Your task to perform on an android device: turn on priority inbox in the gmail app Image 0: 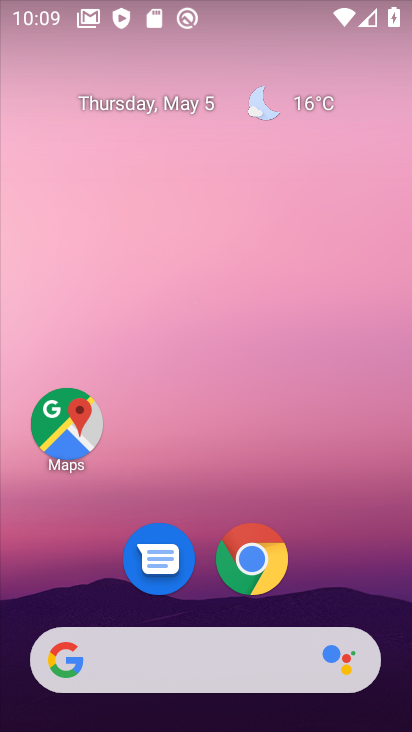
Step 0: drag from (355, 603) to (298, 250)
Your task to perform on an android device: turn on priority inbox in the gmail app Image 1: 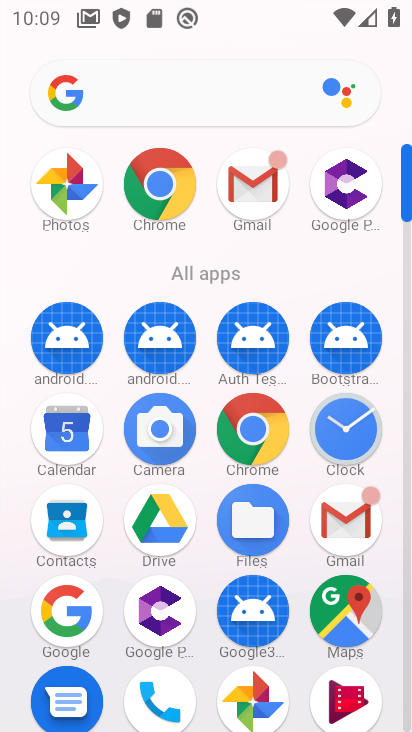
Step 1: click (249, 174)
Your task to perform on an android device: turn on priority inbox in the gmail app Image 2: 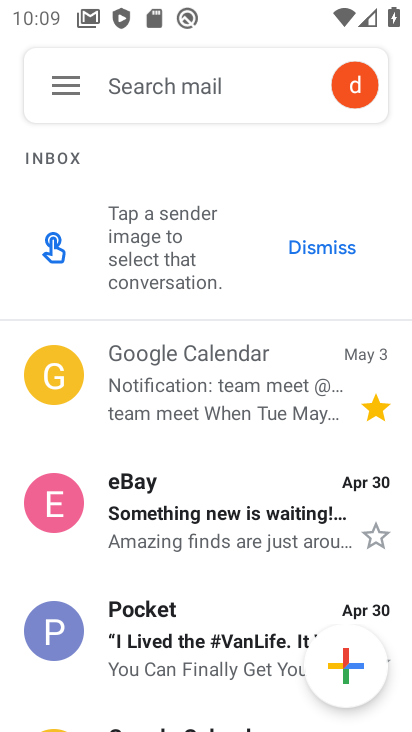
Step 2: click (67, 85)
Your task to perform on an android device: turn on priority inbox in the gmail app Image 3: 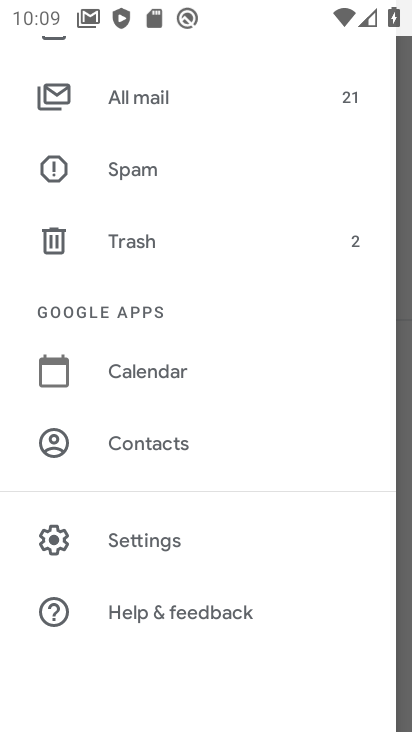
Step 3: click (170, 532)
Your task to perform on an android device: turn on priority inbox in the gmail app Image 4: 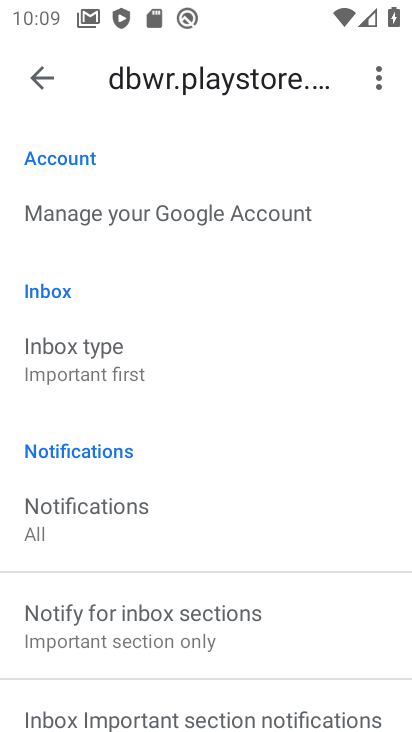
Step 4: click (138, 368)
Your task to perform on an android device: turn on priority inbox in the gmail app Image 5: 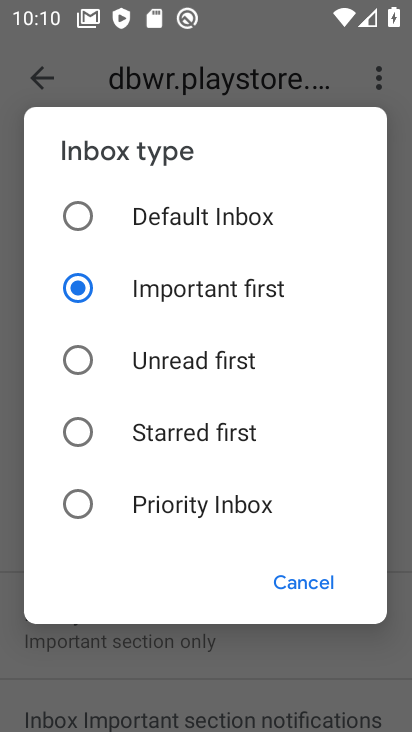
Step 5: click (206, 510)
Your task to perform on an android device: turn on priority inbox in the gmail app Image 6: 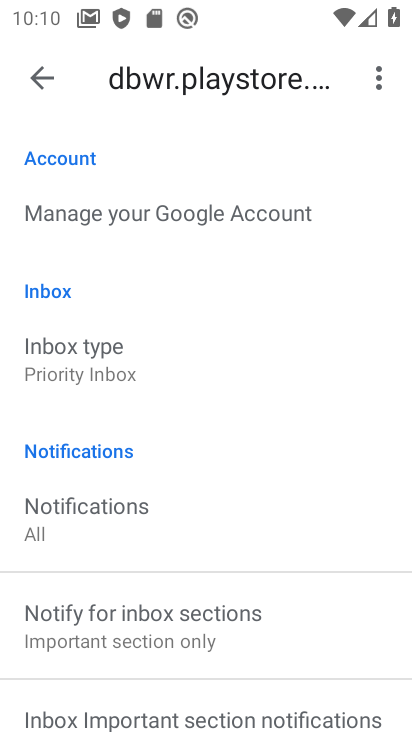
Step 6: task complete